Your task to perform on an android device: What's the weather? Image 0: 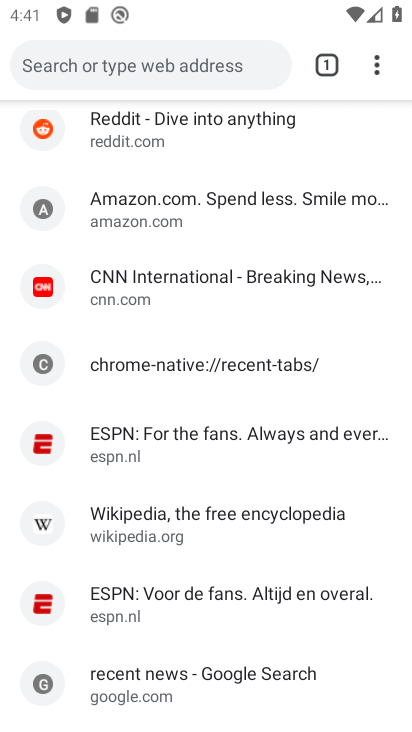
Step 0: click (190, 61)
Your task to perform on an android device: What's the weather? Image 1: 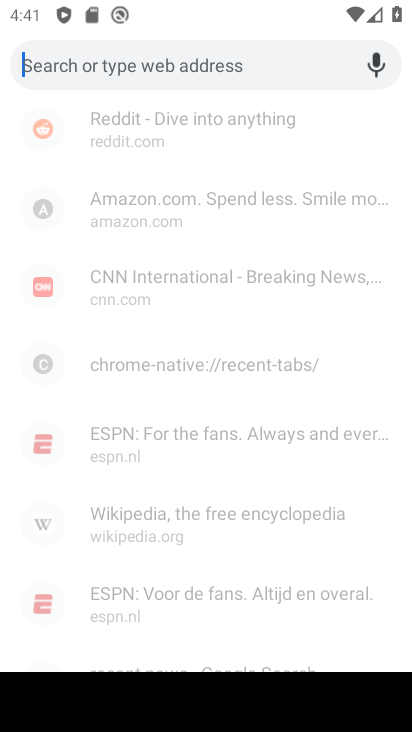
Step 1: type "What's the weather?"
Your task to perform on an android device: What's the weather? Image 2: 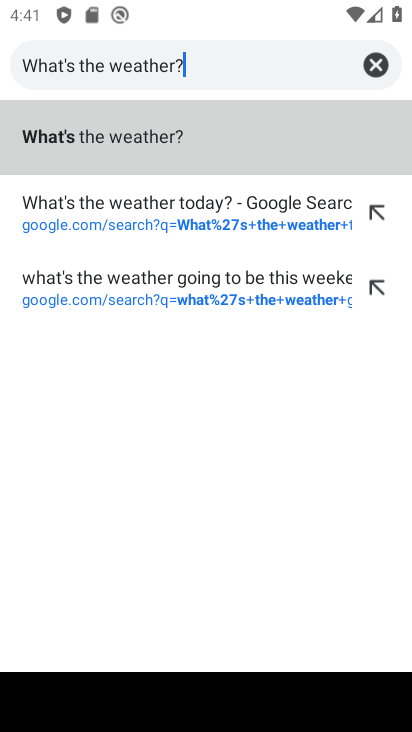
Step 2: type ""
Your task to perform on an android device: What's the weather? Image 3: 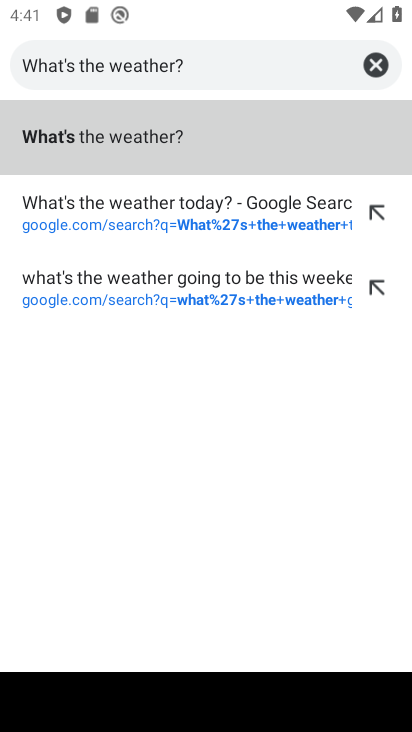
Step 3: click (179, 129)
Your task to perform on an android device: What's the weather? Image 4: 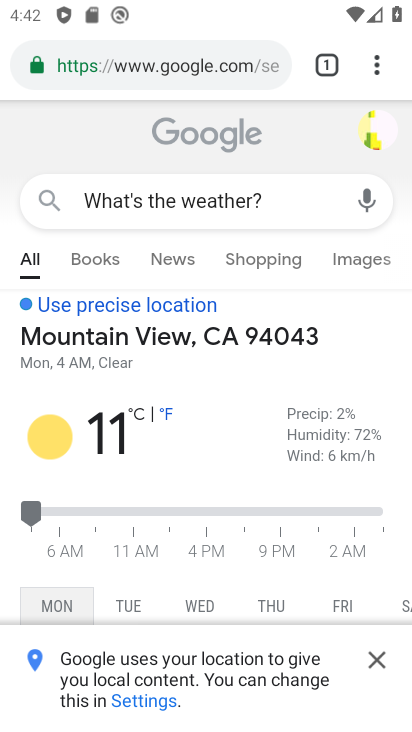
Step 4: task complete